Your task to perform on an android device: Go to Wikipedia Image 0: 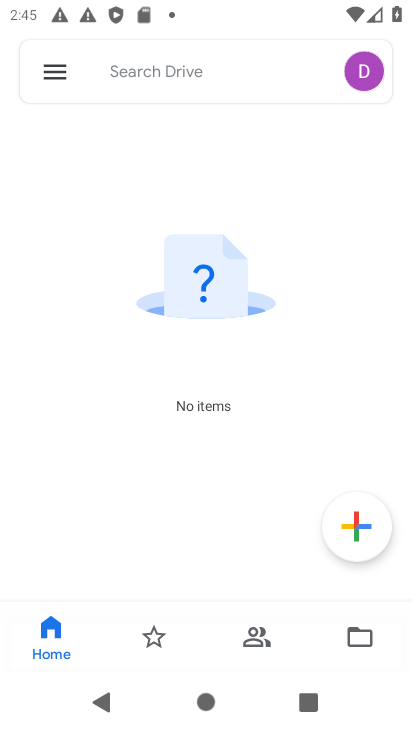
Step 0: press home button
Your task to perform on an android device: Go to Wikipedia Image 1: 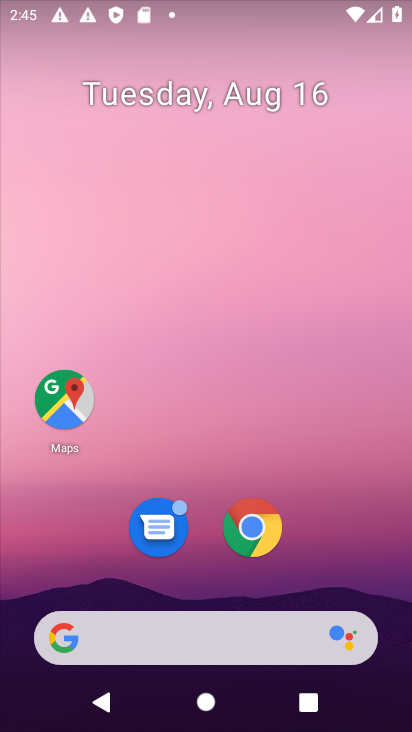
Step 1: click (255, 526)
Your task to perform on an android device: Go to Wikipedia Image 2: 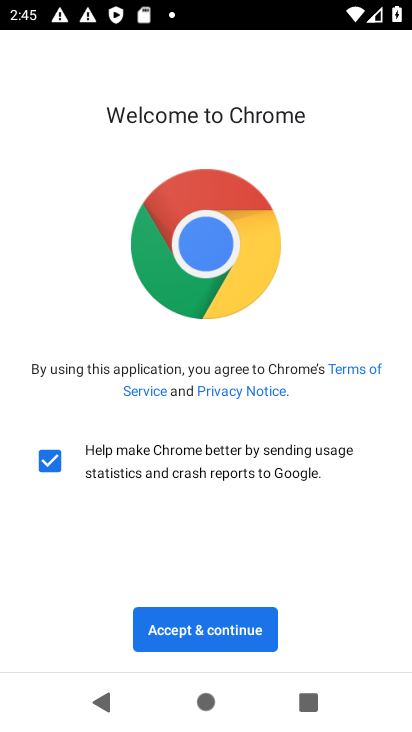
Step 2: click (208, 624)
Your task to perform on an android device: Go to Wikipedia Image 3: 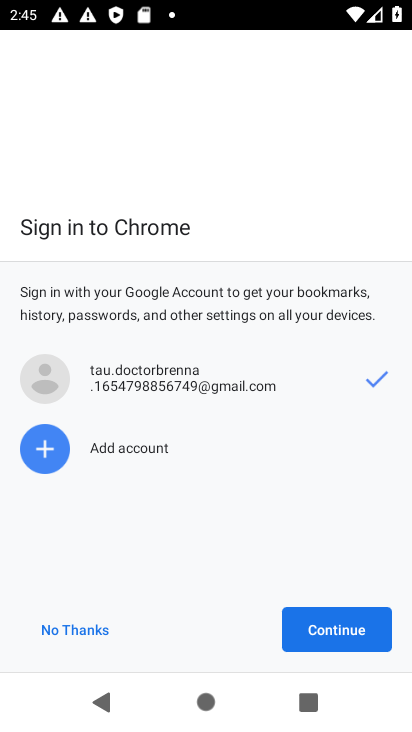
Step 3: click (337, 632)
Your task to perform on an android device: Go to Wikipedia Image 4: 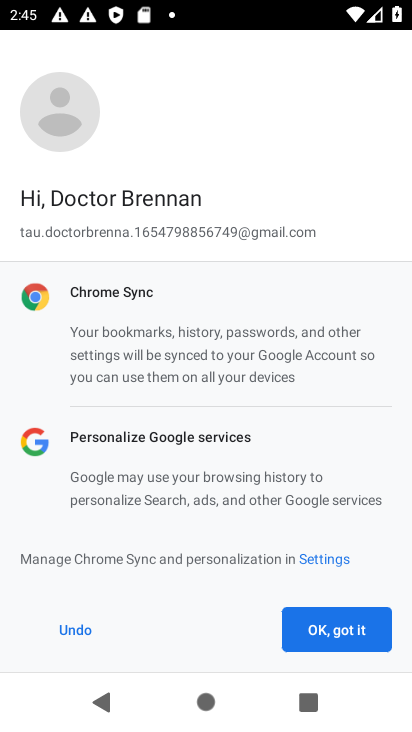
Step 4: click (333, 624)
Your task to perform on an android device: Go to Wikipedia Image 5: 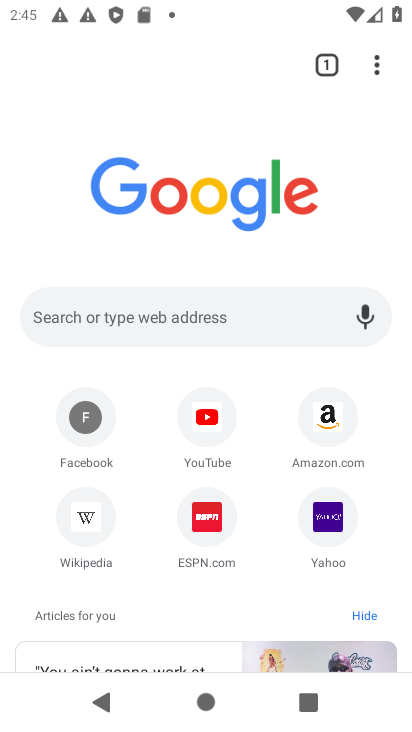
Step 5: click (83, 516)
Your task to perform on an android device: Go to Wikipedia Image 6: 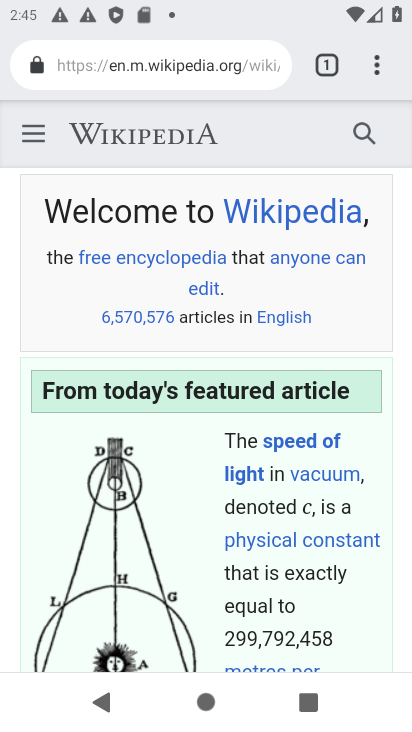
Step 6: task complete